Your task to perform on an android device: Open Yahoo.com Image 0: 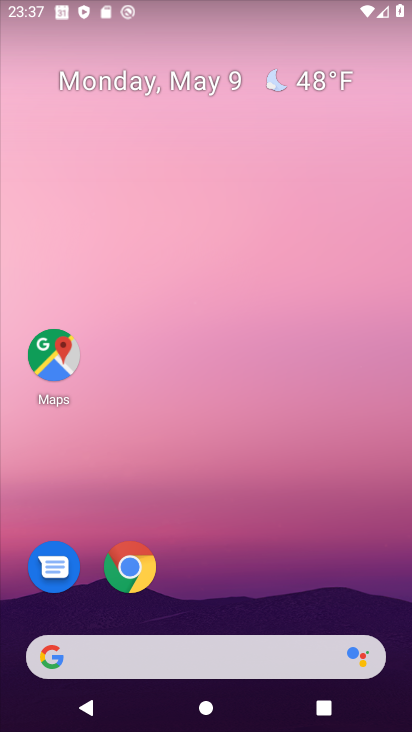
Step 0: click (133, 568)
Your task to perform on an android device: Open Yahoo.com Image 1: 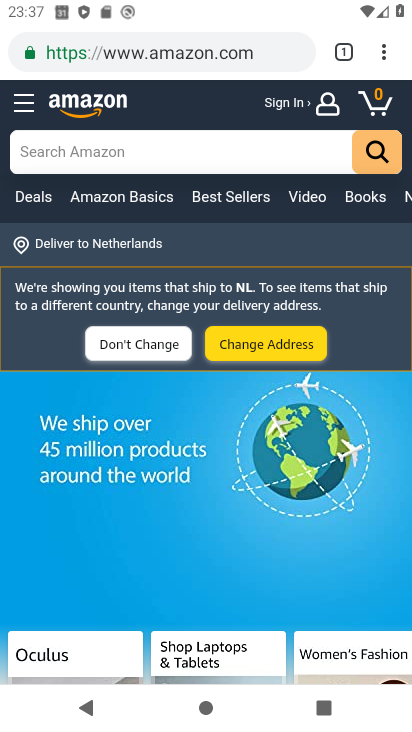
Step 1: click (288, 64)
Your task to perform on an android device: Open Yahoo.com Image 2: 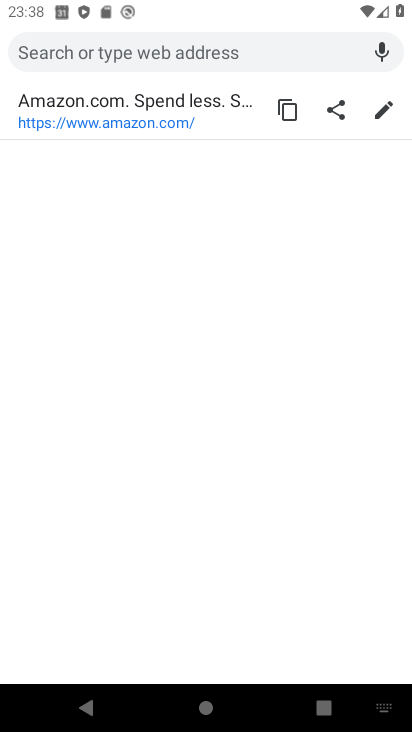
Step 2: type "Yahoo.com"
Your task to perform on an android device: Open Yahoo.com Image 3: 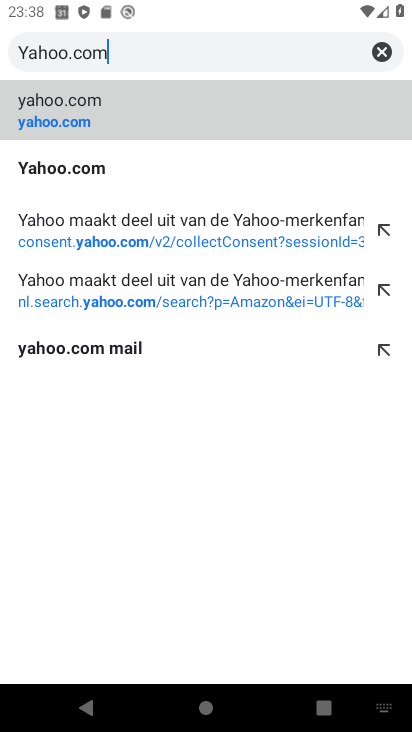
Step 3: type ""
Your task to perform on an android device: Open Yahoo.com Image 4: 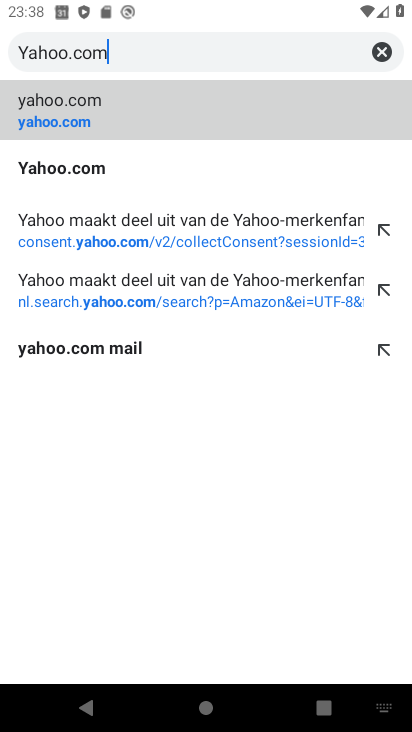
Step 4: click (80, 168)
Your task to perform on an android device: Open Yahoo.com Image 5: 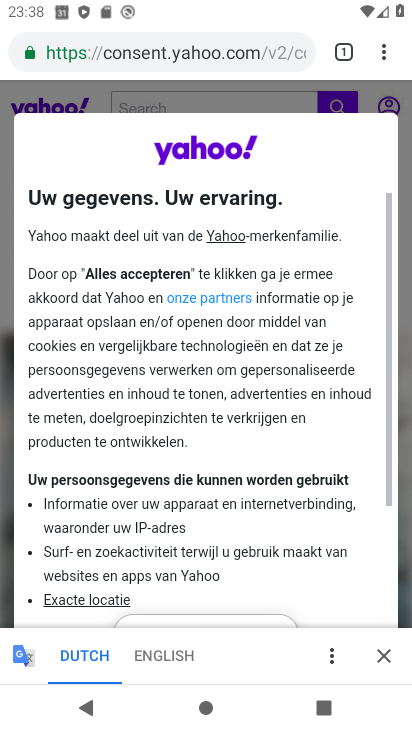
Step 5: task complete